Your task to perform on an android device: Go to sound settings Image 0: 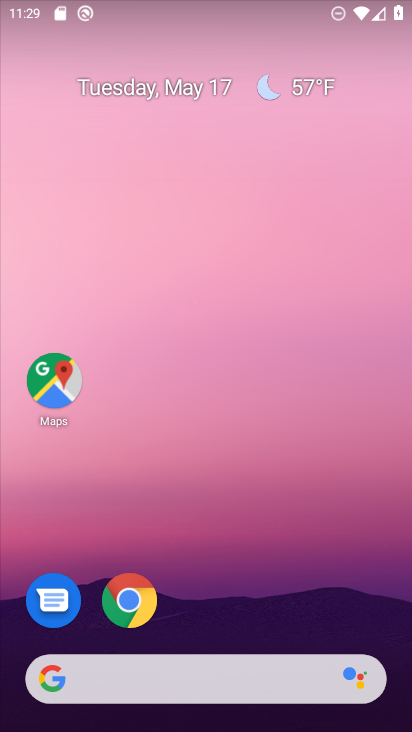
Step 0: drag from (270, 620) to (393, 0)
Your task to perform on an android device: Go to sound settings Image 1: 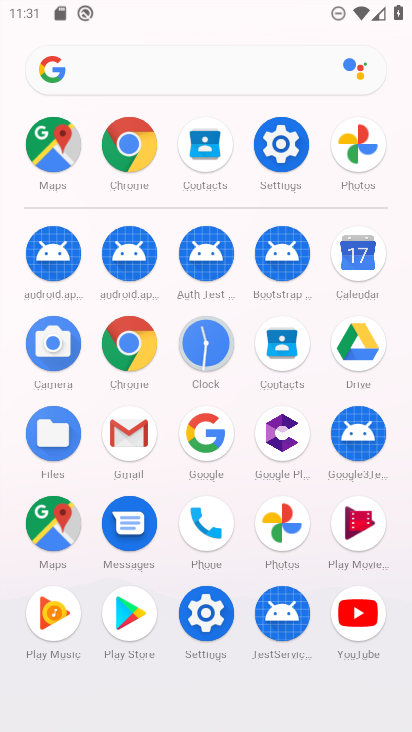
Step 1: click (287, 149)
Your task to perform on an android device: Go to sound settings Image 2: 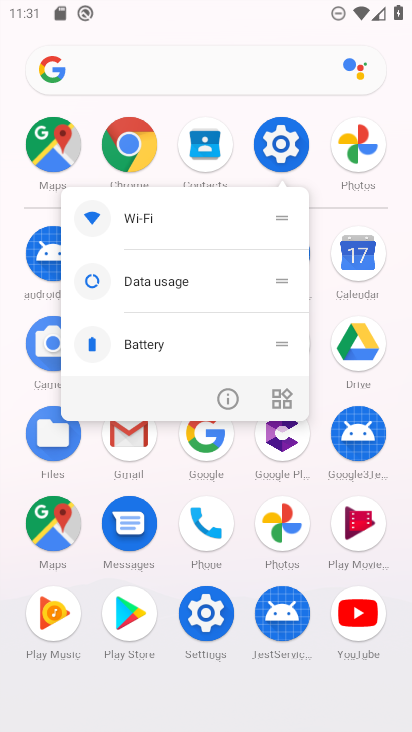
Step 2: click (287, 149)
Your task to perform on an android device: Go to sound settings Image 3: 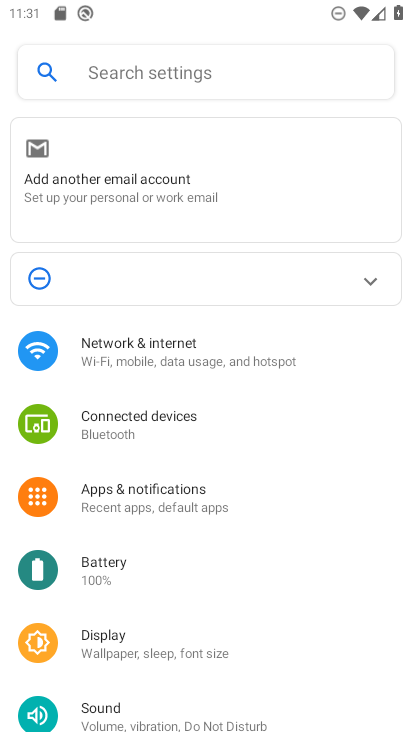
Step 3: drag from (169, 590) to (146, 464)
Your task to perform on an android device: Go to sound settings Image 4: 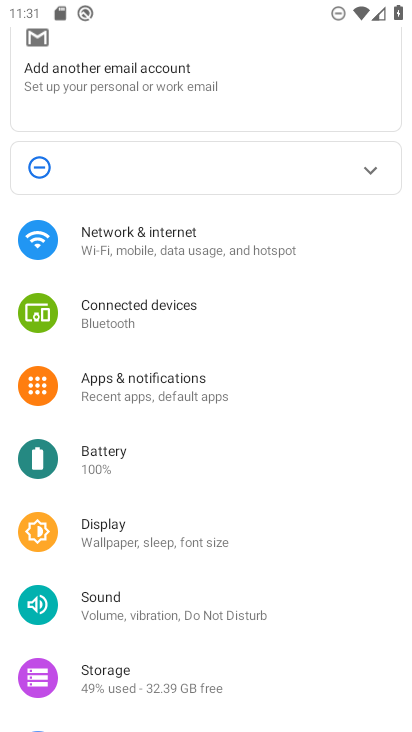
Step 4: drag from (139, 496) to (113, 309)
Your task to perform on an android device: Go to sound settings Image 5: 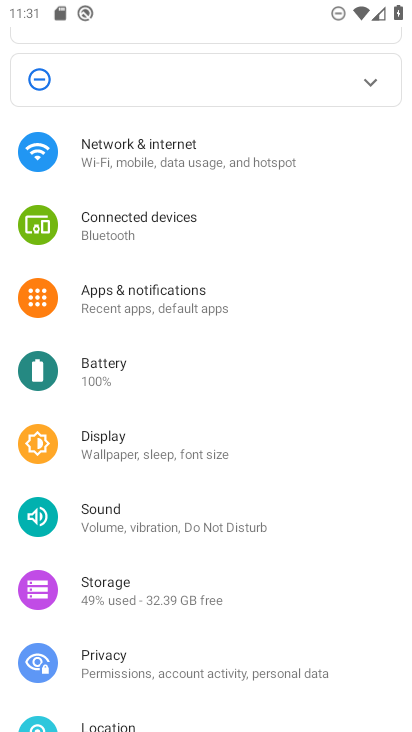
Step 5: click (103, 518)
Your task to perform on an android device: Go to sound settings Image 6: 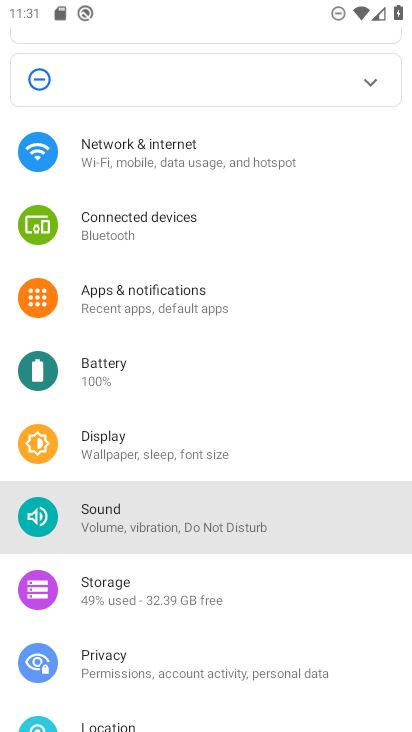
Step 6: click (106, 510)
Your task to perform on an android device: Go to sound settings Image 7: 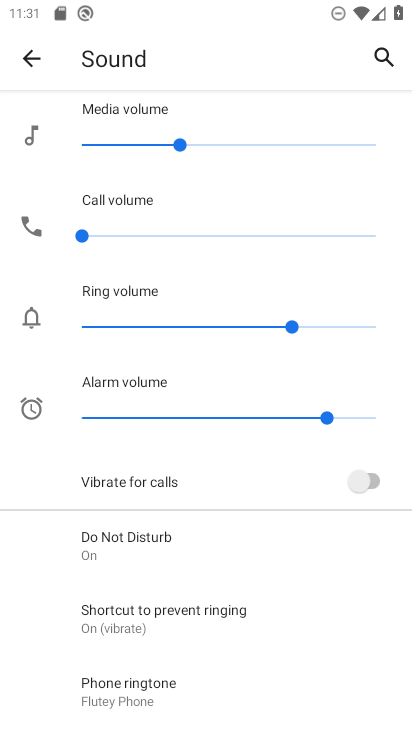
Step 7: task complete